Your task to perform on an android device: turn off wifi Image 0: 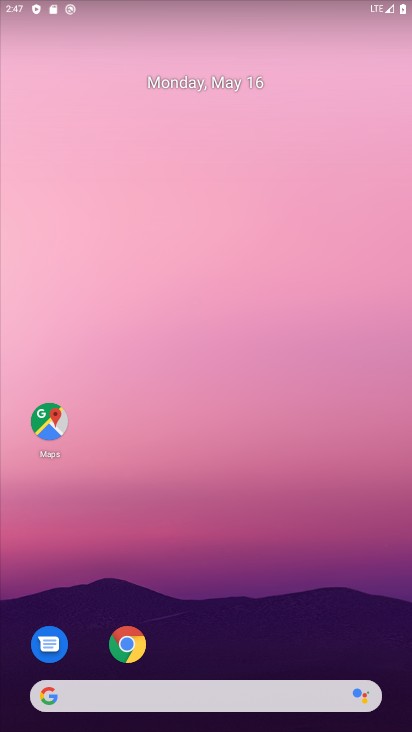
Step 0: drag from (179, 626) to (299, 49)
Your task to perform on an android device: turn off wifi Image 1: 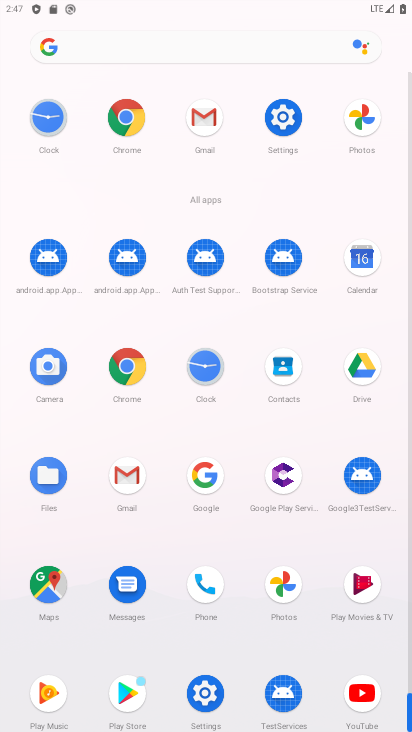
Step 1: drag from (212, 575) to (280, 369)
Your task to perform on an android device: turn off wifi Image 2: 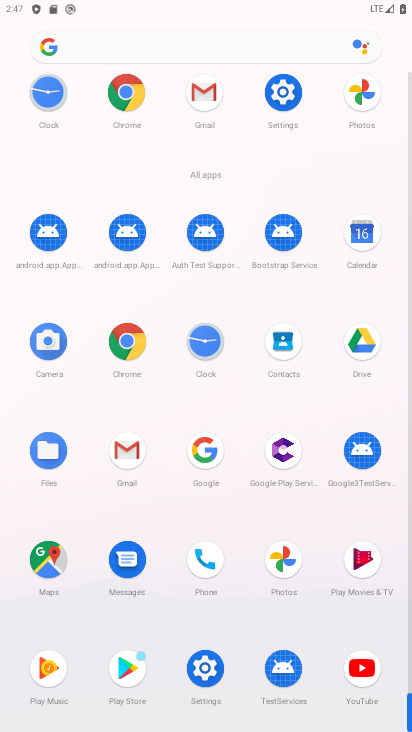
Step 2: click (203, 678)
Your task to perform on an android device: turn off wifi Image 3: 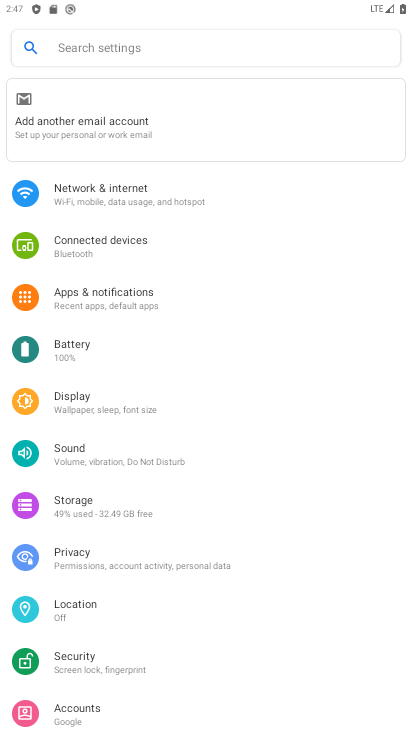
Step 3: click (153, 197)
Your task to perform on an android device: turn off wifi Image 4: 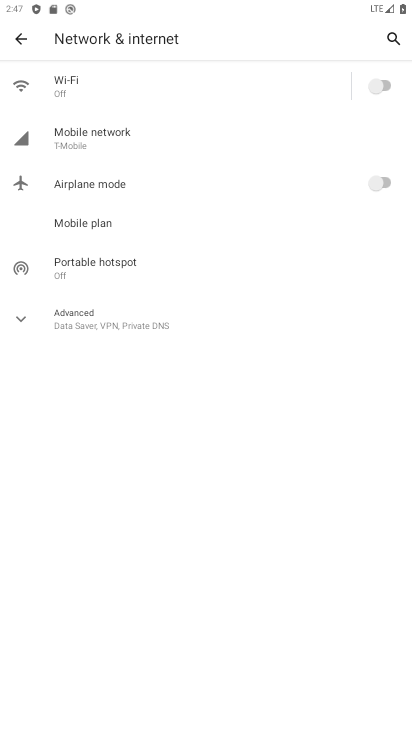
Step 4: task complete